Your task to perform on an android device: empty trash in the gmail app Image 0: 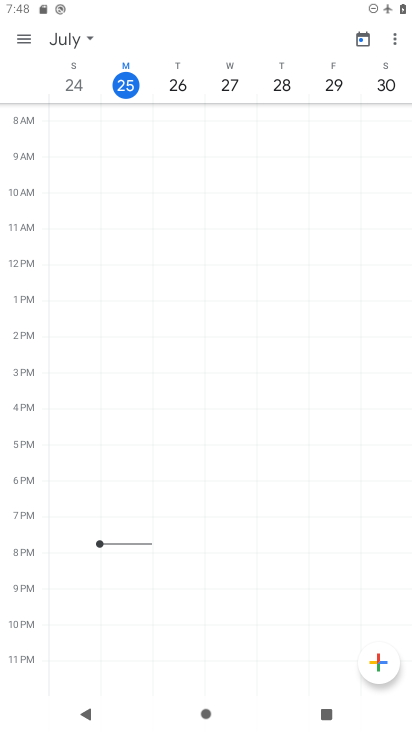
Step 0: press home button
Your task to perform on an android device: empty trash in the gmail app Image 1: 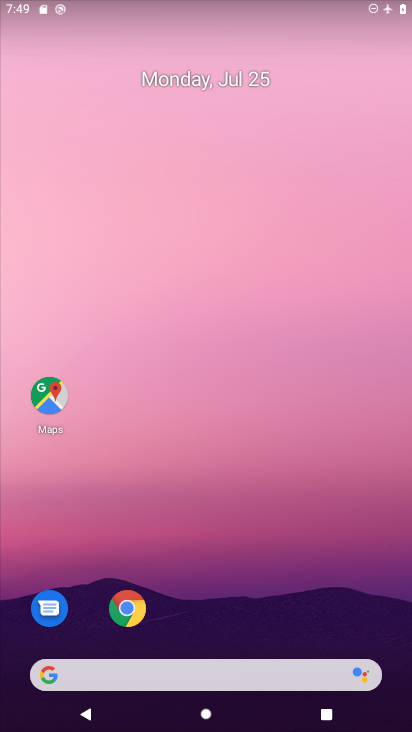
Step 1: drag from (304, 564) to (224, 2)
Your task to perform on an android device: empty trash in the gmail app Image 2: 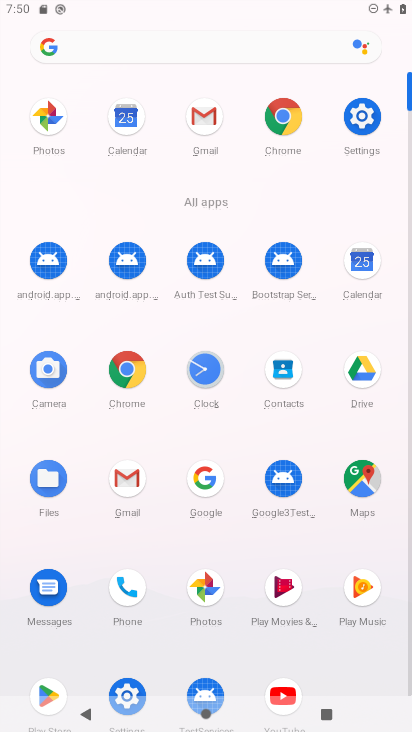
Step 2: click (201, 114)
Your task to perform on an android device: empty trash in the gmail app Image 3: 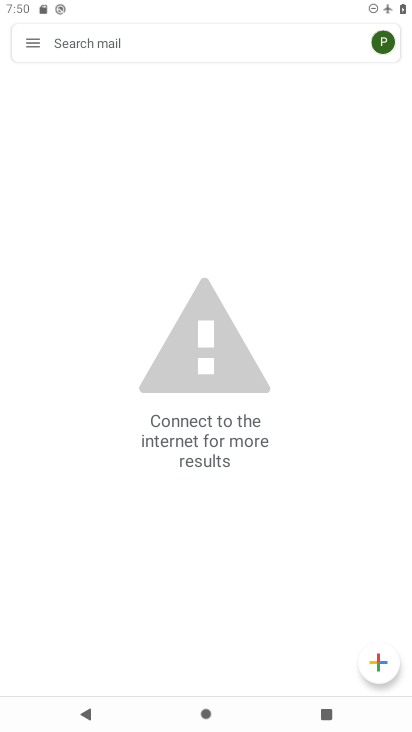
Step 3: click (30, 33)
Your task to perform on an android device: empty trash in the gmail app Image 4: 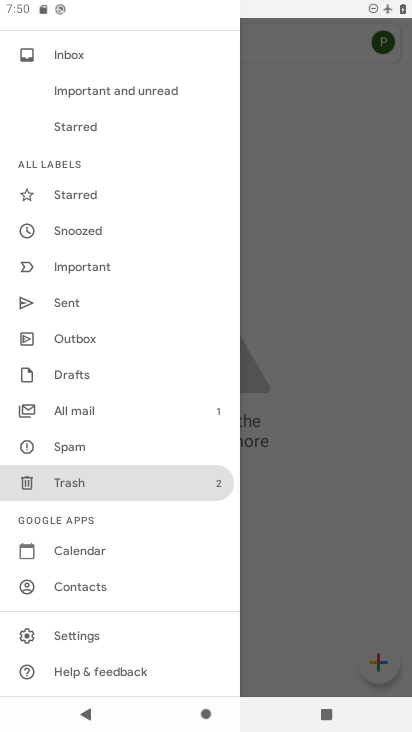
Step 4: click (75, 492)
Your task to perform on an android device: empty trash in the gmail app Image 5: 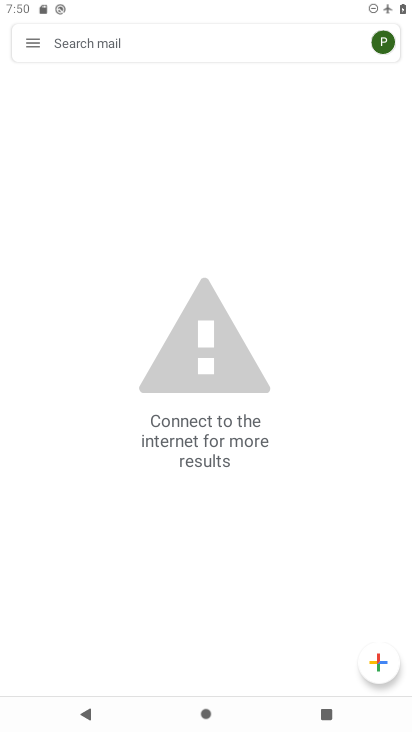
Step 5: task complete